Your task to perform on an android device: toggle show notifications on the lock screen Image 0: 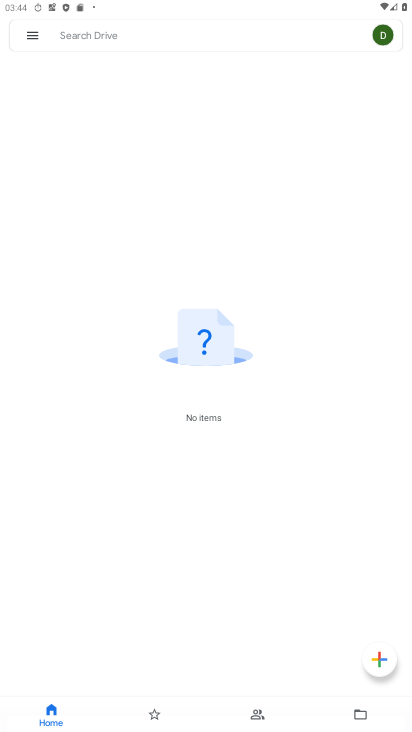
Step 0: press home button
Your task to perform on an android device: toggle show notifications on the lock screen Image 1: 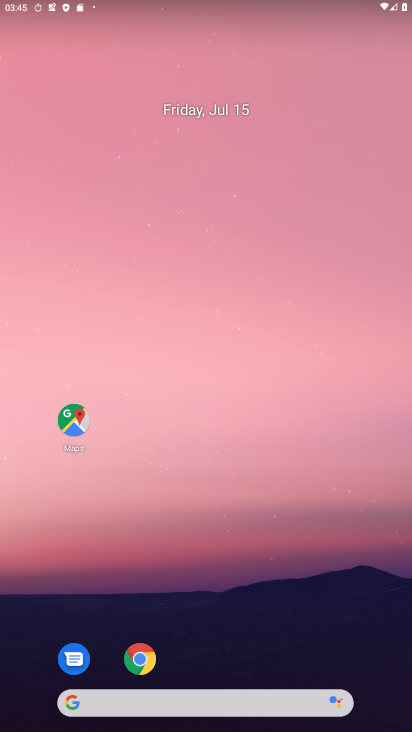
Step 1: drag from (282, 606) to (267, 4)
Your task to perform on an android device: toggle show notifications on the lock screen Image 2: 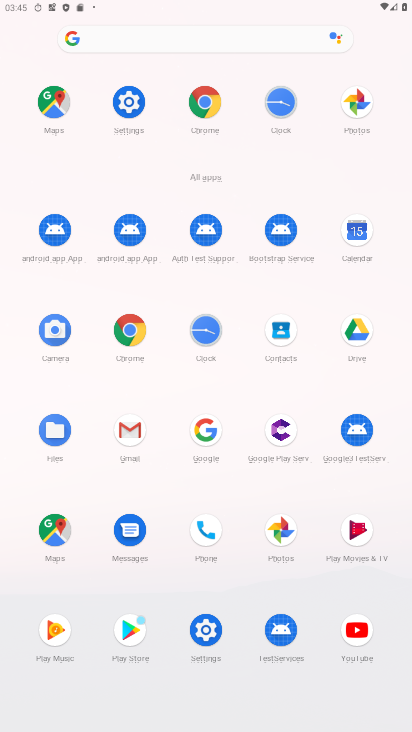
Step 2: click (133, 110)
Your task to perform on an android device: toggle show notifications on the lock screen Image 3: 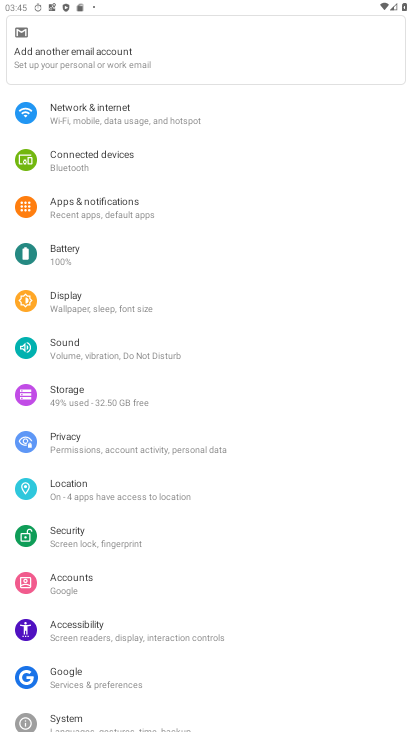
Step 3: click (104, 208)
Your task to perform on an android device: toggle show notifications on the lock screen Image 4: 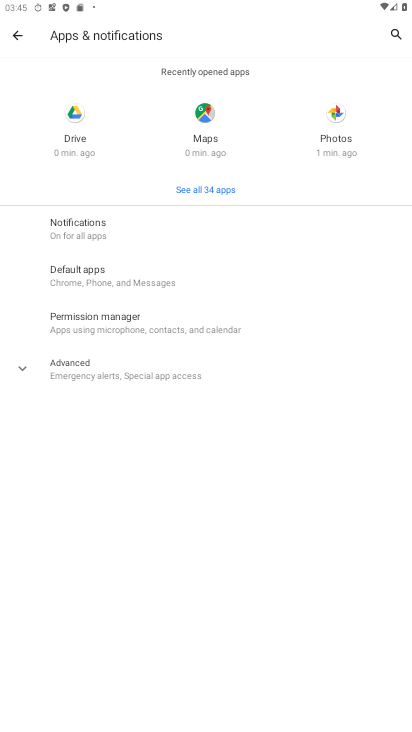
Step 4: click (96, 222)
Your task to perform on an android device: toggle show notifications on the lock screen Image 5: 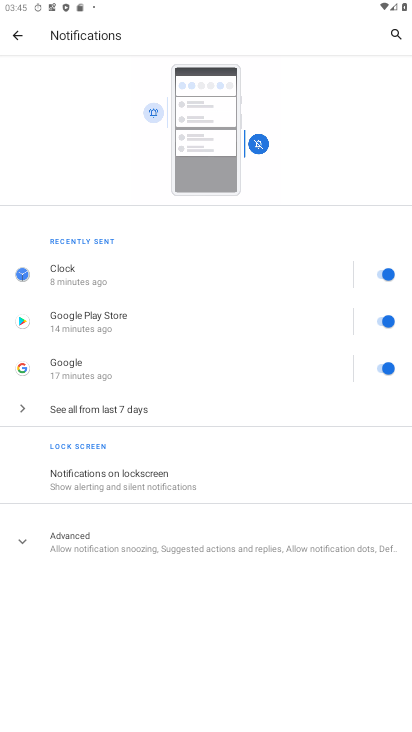
Step 5: click (136, 483)
Your task to perform on an android device: toggle show notifications on the lock screen Image 6: 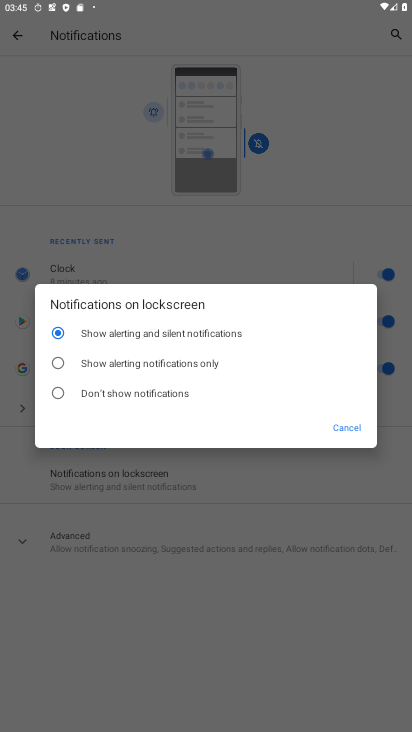
Step 6: click (147, 366)
Your task to perform on an android device: toggle show notifications on the lock screen Image 7: 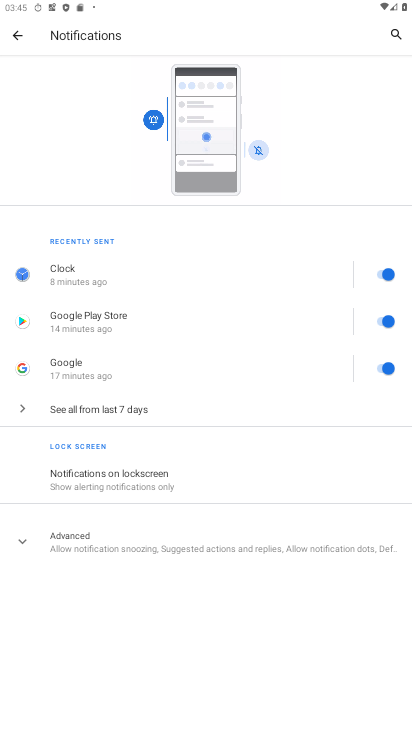
Step 7: task complete